Your task to perform on an android device: Open battery settings Image 0: 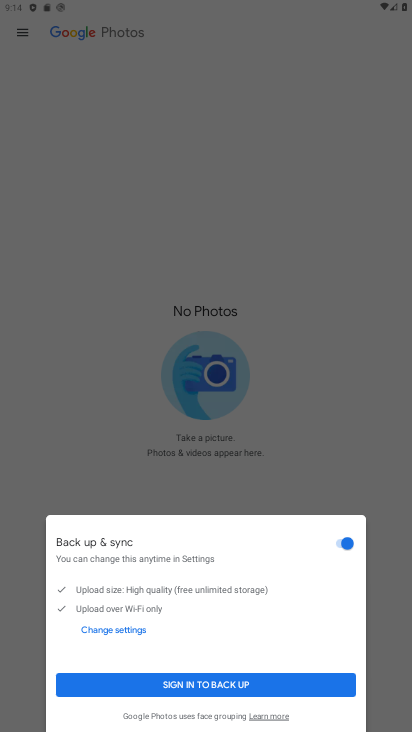
Step 0: press home button
Your task to perform on an android device: Open battery settings Image 1: 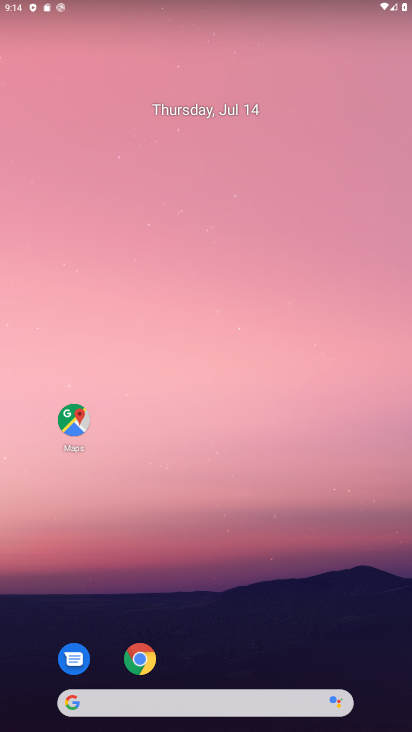
Step 1: drag from (197, 658) to (235, 300)
Your task to perform on an android device: Open battery settings Image 2: 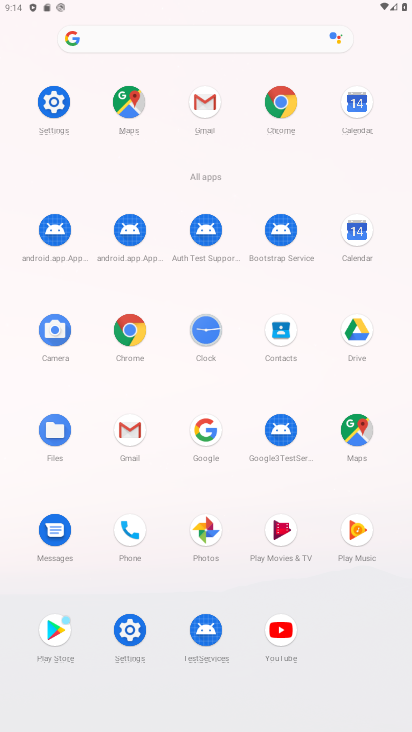
Step 2: click (43, 96)
Your task to perform on an android device: Open battery settings Image 3: 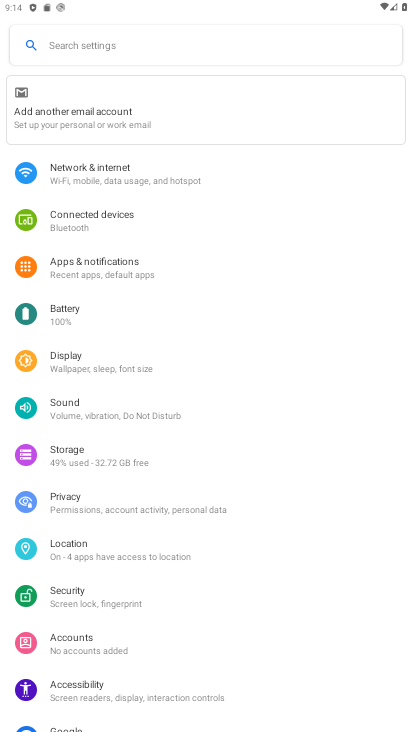
Step 3: click (89, 309)
Your task to perform on an android device: Open battery settings Image 4: 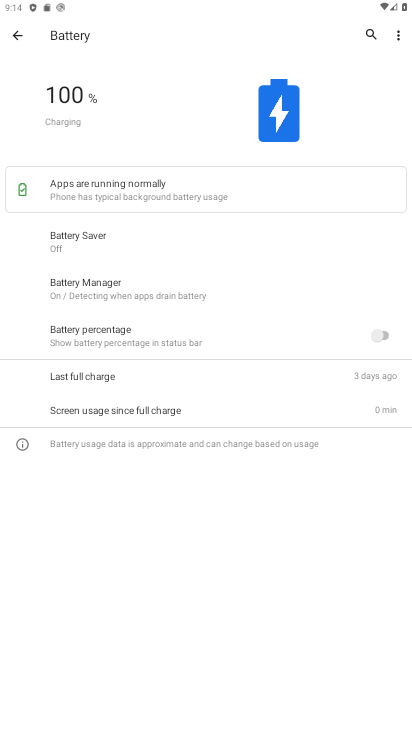
Step 4: task complete